Your task to perform on an android device: Search for vegetarian restaurants on Maps Image 0: 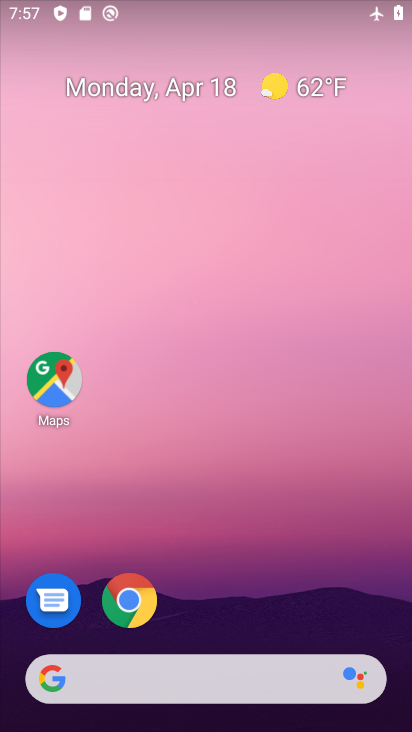
Step 0: drag from (219, 645) to (219, 26)
Your task to perform on an android device: Search for vegetarian restaurants on Maps Image 1: 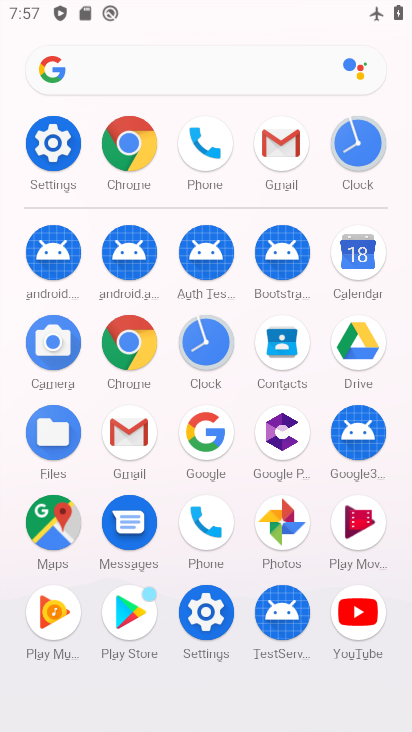
Step 1: click (64, 526)
Your task to perform on an android device: Search for vegetarian restaurants on Maps Image 2: 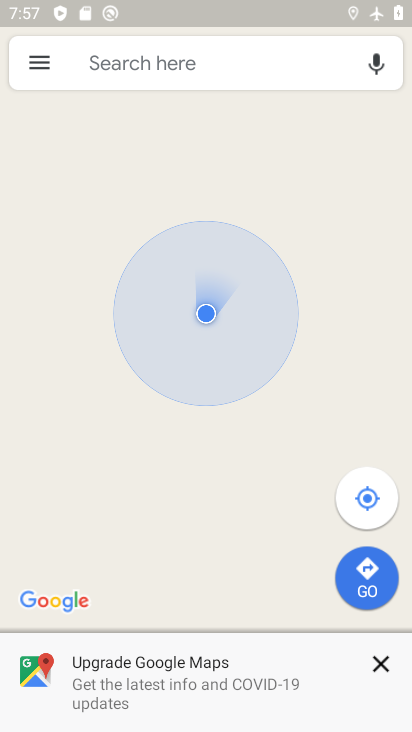
Step 2: click (386, 656)
Your task to perform on an android device: Search for vegetarian restaurants on Maps Image 3: 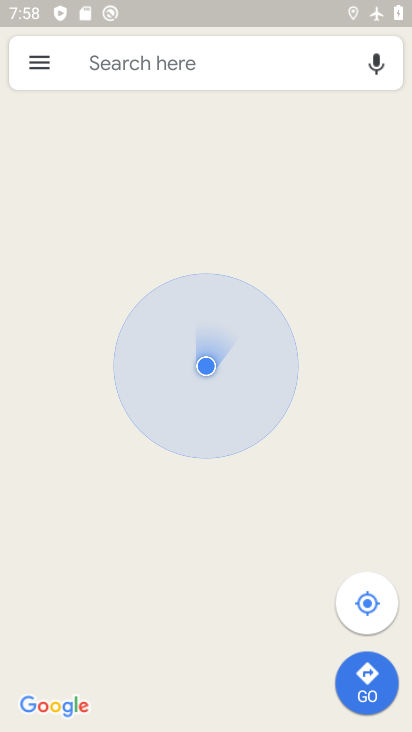
Step 3: click (240, 48)
Your task to perform on an android device: Search for vegetarian restaurants on Maps Image 4: 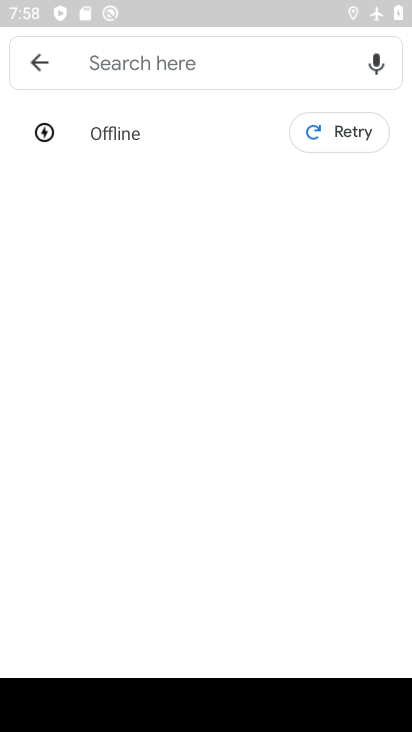
Step 4: task complete